Your task to perform on an android device: turn off smart reply in the gmail app Image 0: 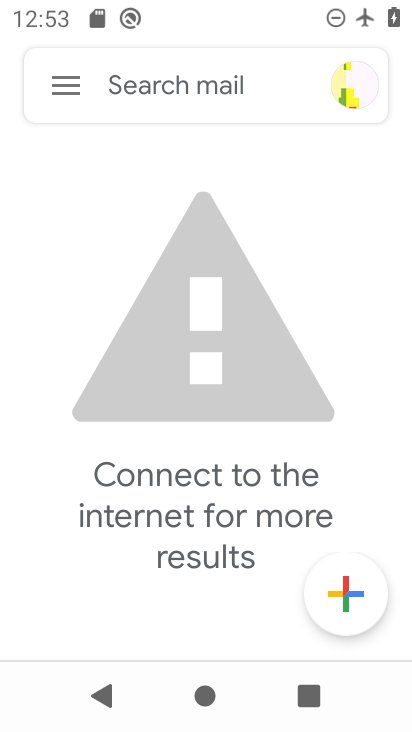
Step 0: press home button
Your task to perform on an android device: turn off smart reply in the gmail app Image 1: 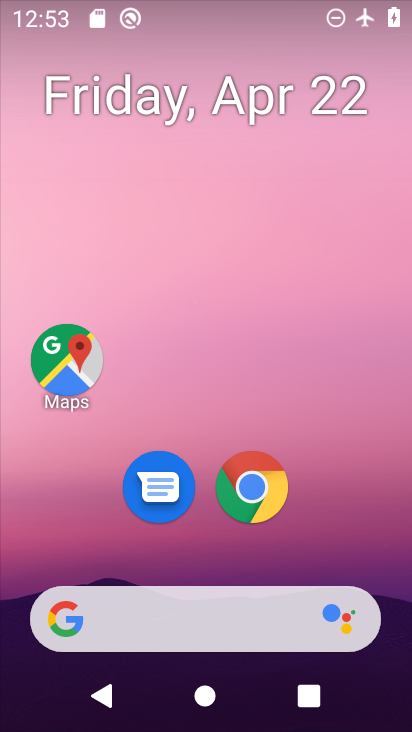
Step 1: drag from (248, 555) to (304, 173)
Your task to perform on an android device: turn off smart reply in the gmail app Image 2: 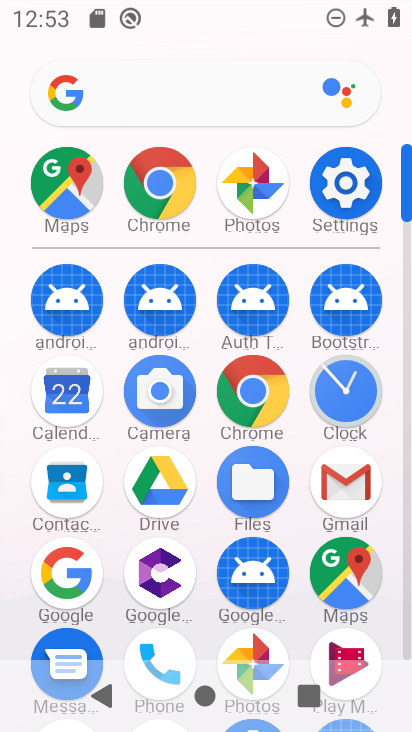
Step 2: click (153, 182)
Your task to perform on an android device: turn off smart reply in the gmail app Image 3: 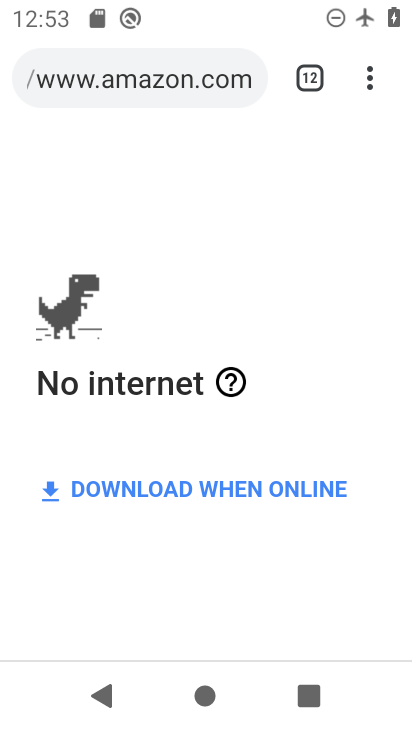
Step 3: click (352, 77)
Your task to perform on an android device: turn off smart reply in the gmail app Image 4: 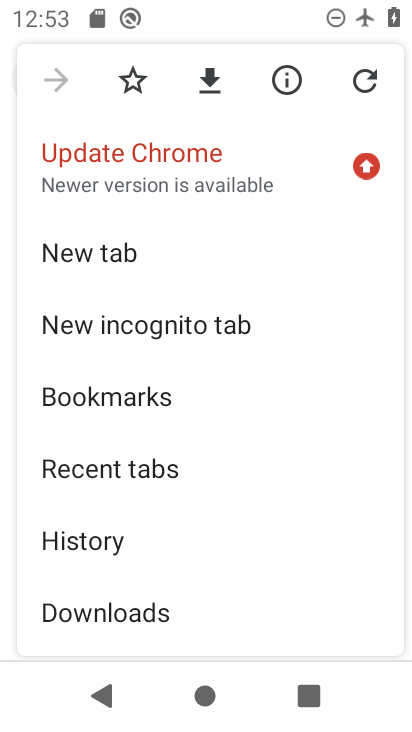
Step 4: drag from (195, 551) to (253, 180)
Your task to perform on an android device: turn off smart reply in the gmail app Image 5: 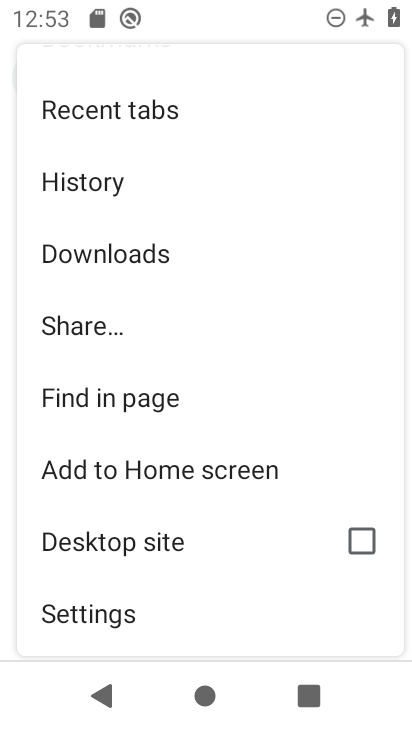
Step 5: click (164, 612)
Your task to perform on an android device: turn off smart reply in the gmail app Image 6: 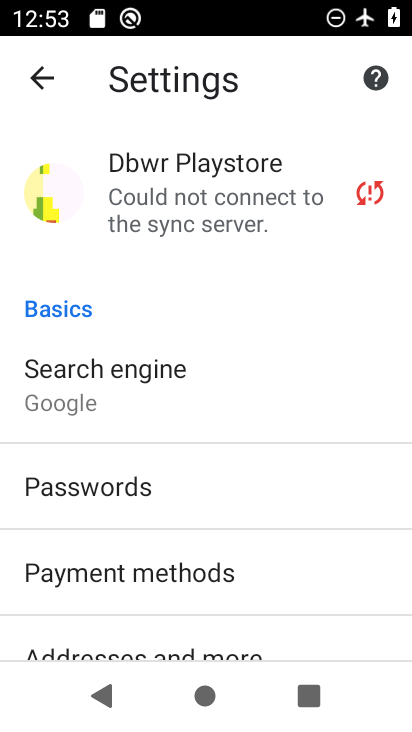
Step 6: drag from (205, 615) to (270, 196)
Your task to perform on an android device: turn off smart reply in the gmail app Image 7: 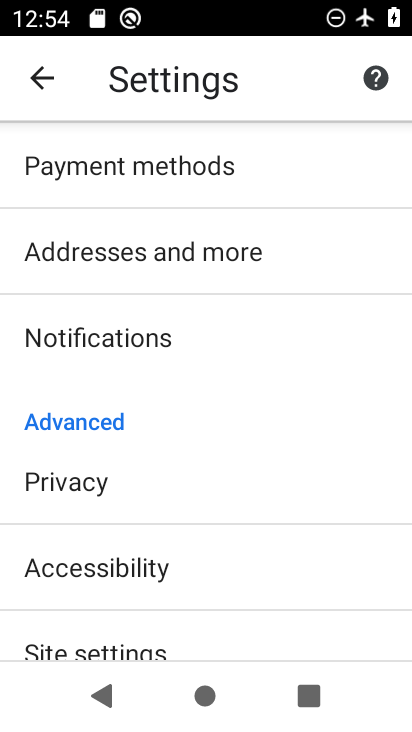
Step 7: drag from (195, 591) to (245, 322)
Your task to perform on an android device: turn off smart reply in the gmail app Image 8: 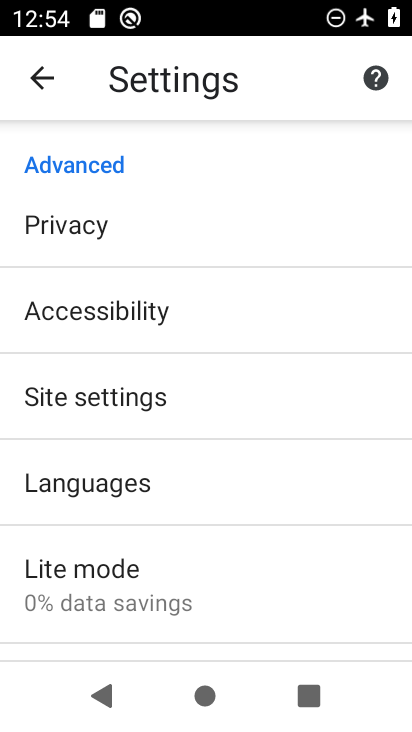
Step 8: drag from (114, 535) to (113, 402)
Your task to perform on an android device: turn off smart reply in the gmail app Image 9: 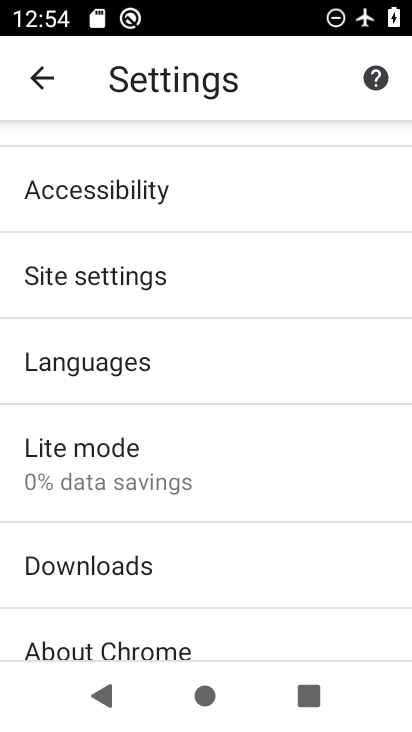
Step 9: click (42, 79)
Your task to perform on an android device: turn off smart reply in the gmail app Image 10: 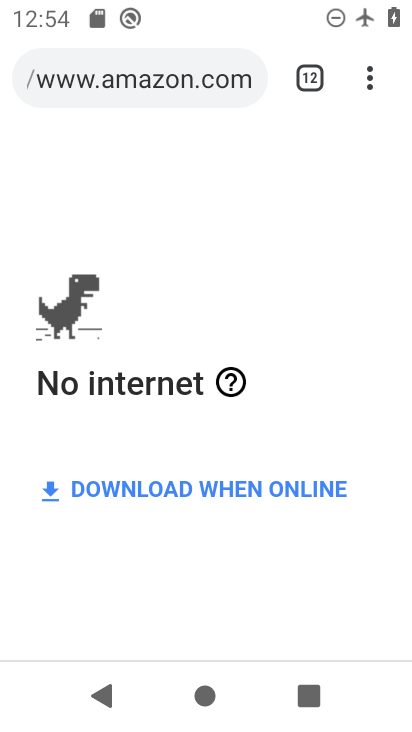
Step 10: press home button
Your task to perform on an android device: turn off smart reply in the gmail app Image 11: 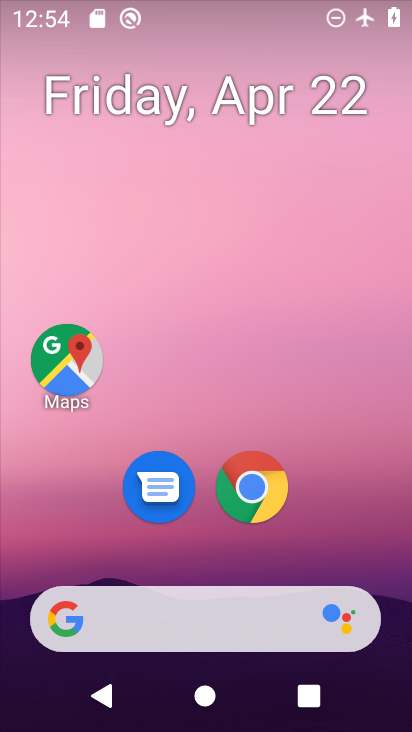
Step 11: drag from (183, 643) to (215, 184)
Your task to perform on an android device: turn off smart reply in the gmail app Image 12: 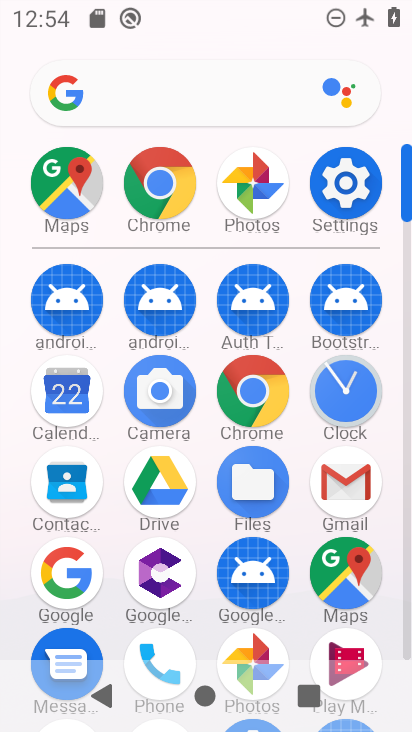
Step 12: click (332, 476)
Your task to perform on an android device: turn off smart reply in the gmail app Image 13: 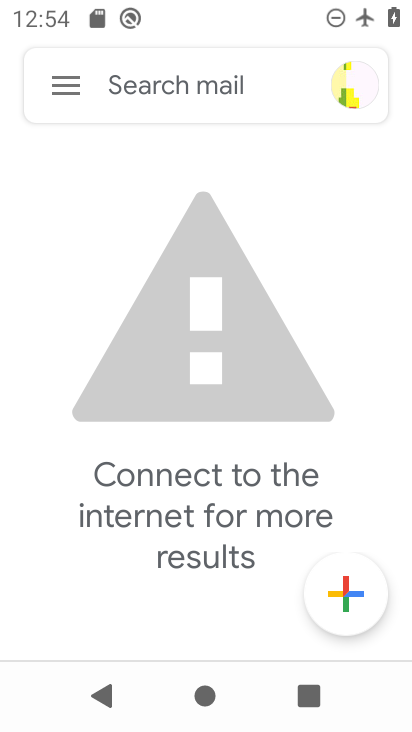
Step 13: click (41, 66)
Your task to perform on an android device: turn off smart reply in the gmail app Image 14: 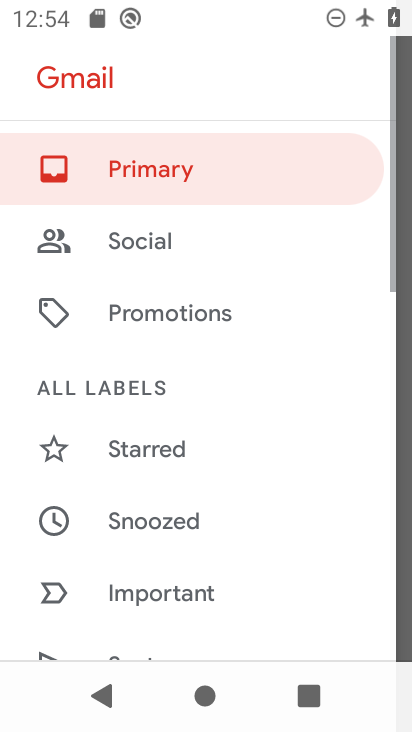
Step 14: drag from (159, 624) to (218, 203)
Your task to perform on an android device: turn off smart reply in the gmail app Image 15: 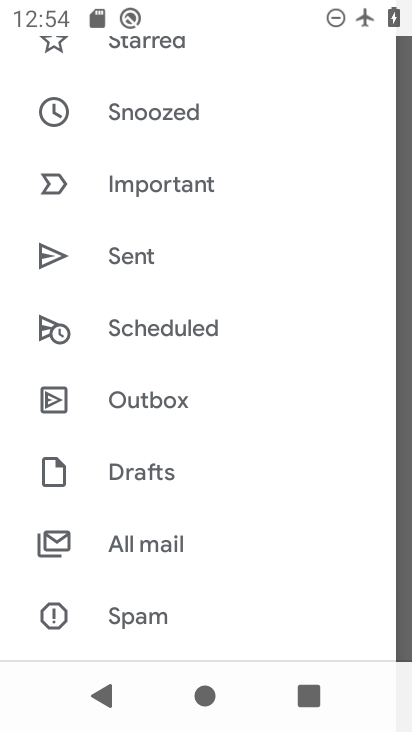
Step 15: drag from (199, 590) to (215, 252)
Your task to perform on an android device: turn off smart reply in the gmail app Image 16: 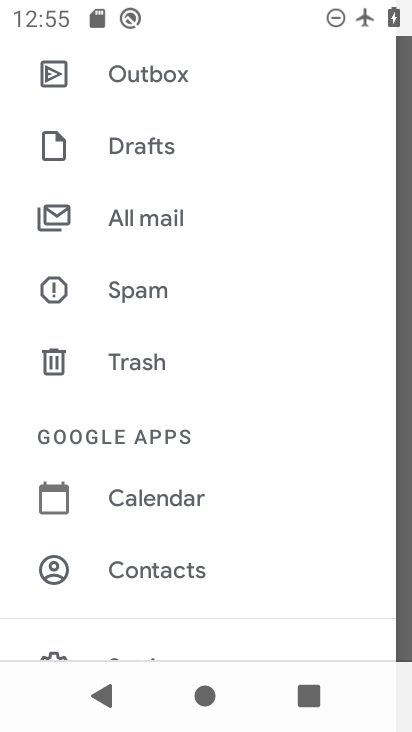
Step 16: drag from (163, 598) to (225, 215)
Your task to perform on an android device: turn off smart reply in the gmail app Image 17: 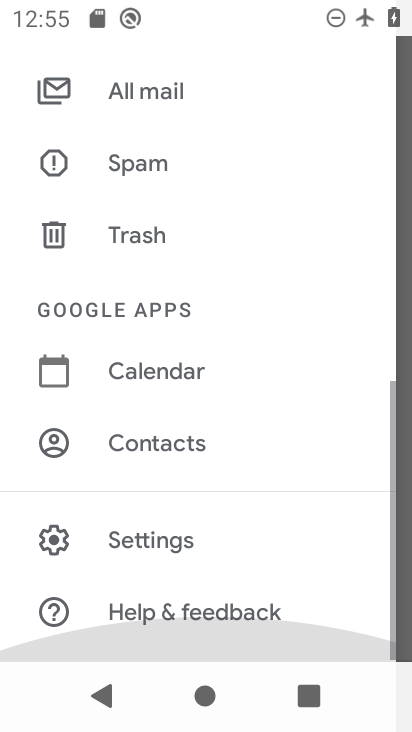
Step 17: click (146, 541)
Your task to perform on an android device: turn off smart reply in the gmail app Image 18: 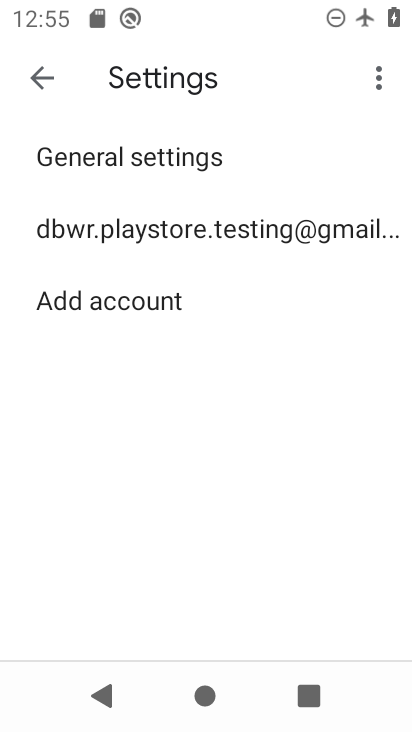
Step 18: click (193, 225)
Your task to perform on an android device: turn off smart reply in the gmail app Image 19: 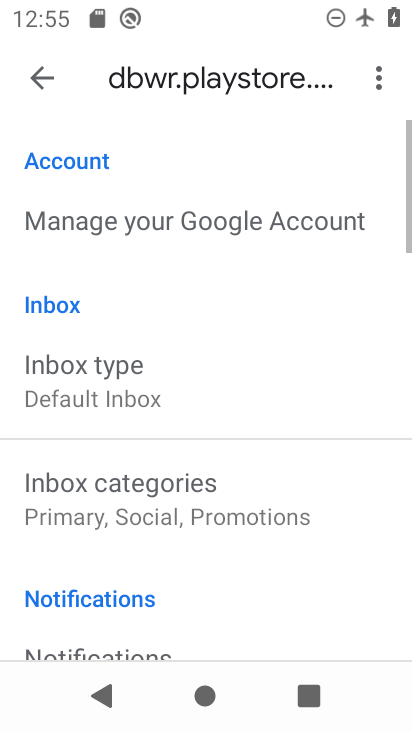
Step 19: drag from (195, 612) to (255, 194)
Your task to perform on an android device: turn off smart reply in the gmail app Image 20: 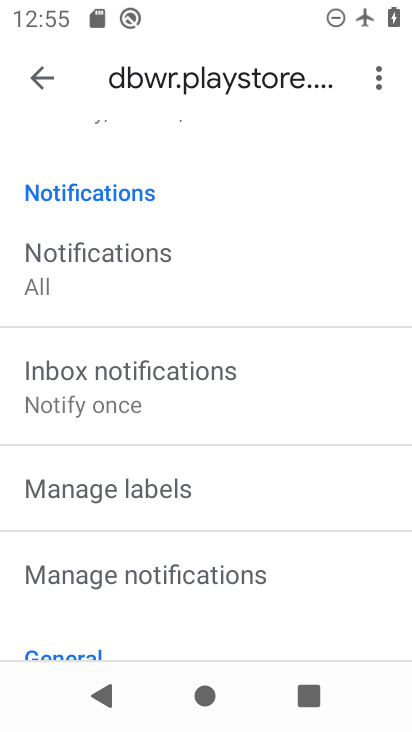
Step 20: drag from (233, 577) to (263, 247)
Your task to perform on an android device: turn off smart reply in the gmail app Image 21: 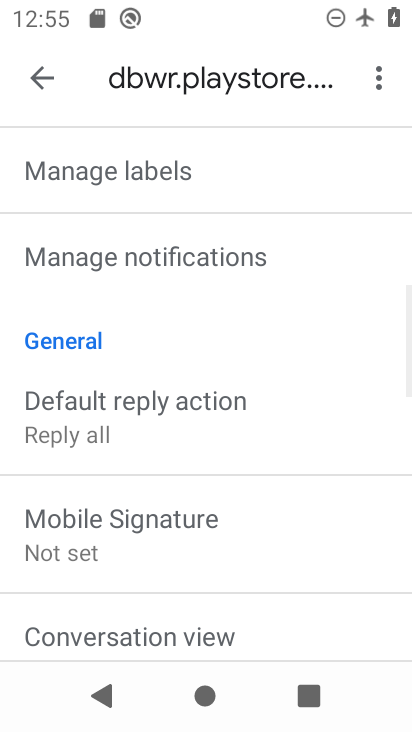
Step 21: drag from (195, 613) to (294, 117)
Your task to perform on an android device: turn off smart reply in the gmail app Image 22: 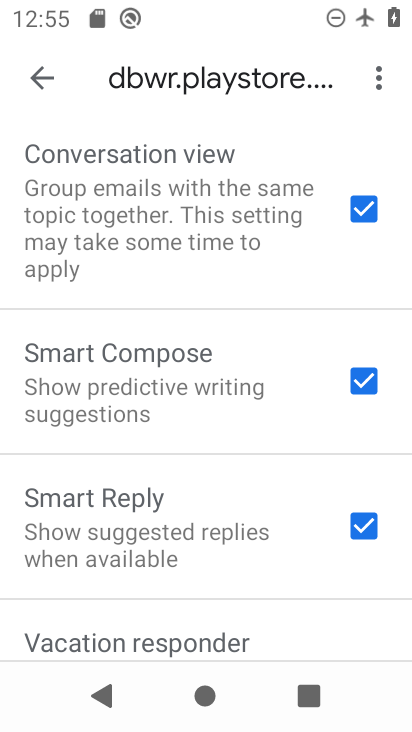
Step 22: click (361, 527)
Your task to perform on an android device: turn off smart reply in the gmail app Image 23: 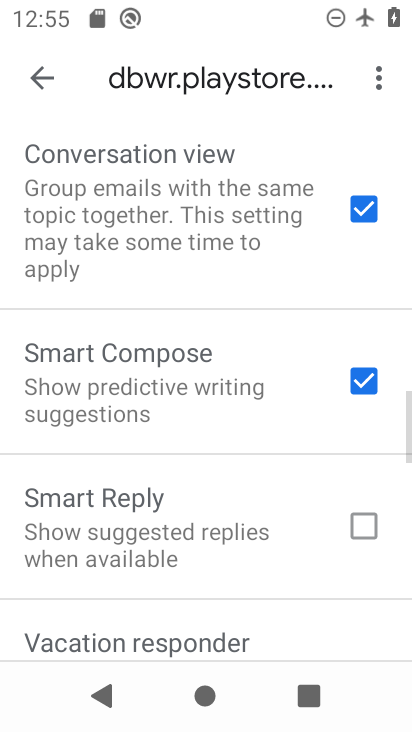
Step 23: task complete